Your task to perform on an android device: turn off location Image 0: 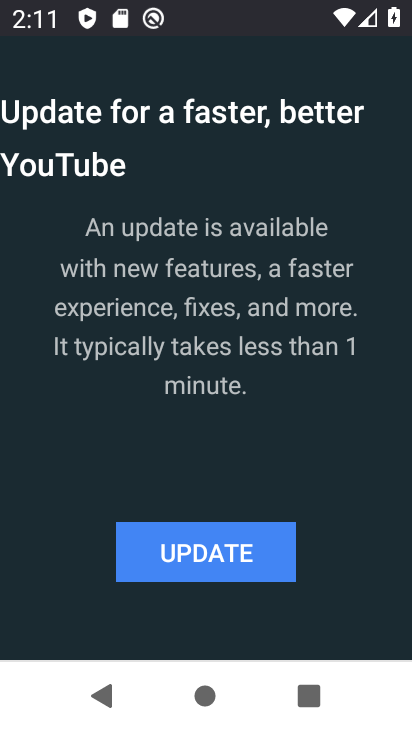
Step 0: press home button
Your task to perform on an android device: turn off location Image 1: 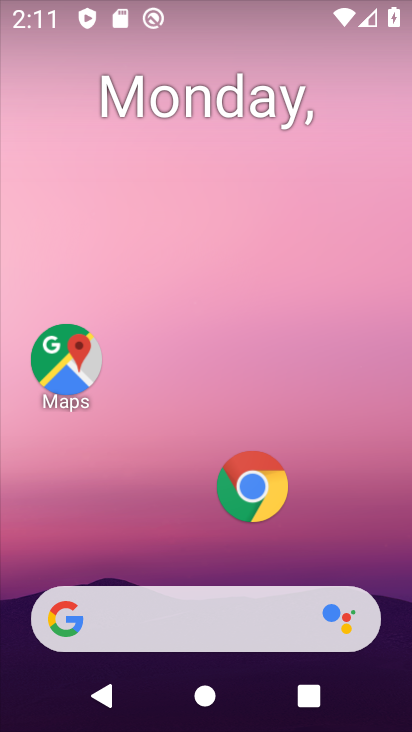
Step 1: drag from (334, 531) to (323, 69)
Your task to perform on an android device: turn off location Image 2: 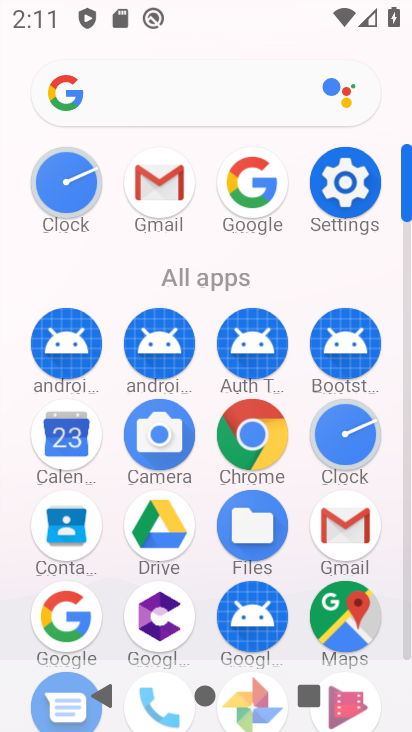
Step 2: click (336, 184)
Your task to perform on an android device: turn off location Image 3: 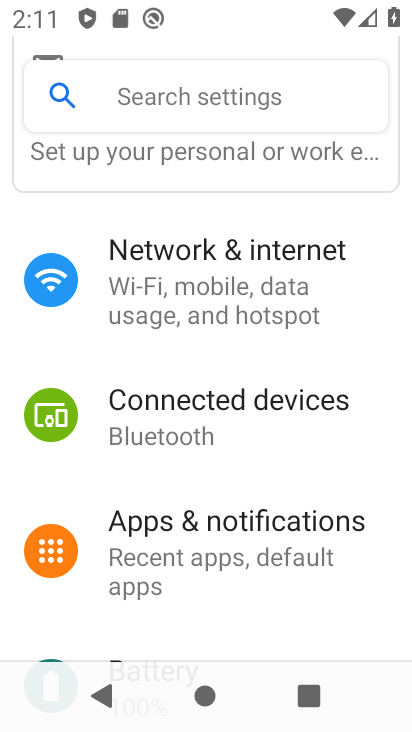
Step 3: drag from (235, 592) to (275, 302)
Your task to perform on an android device: turn off location Image 4: 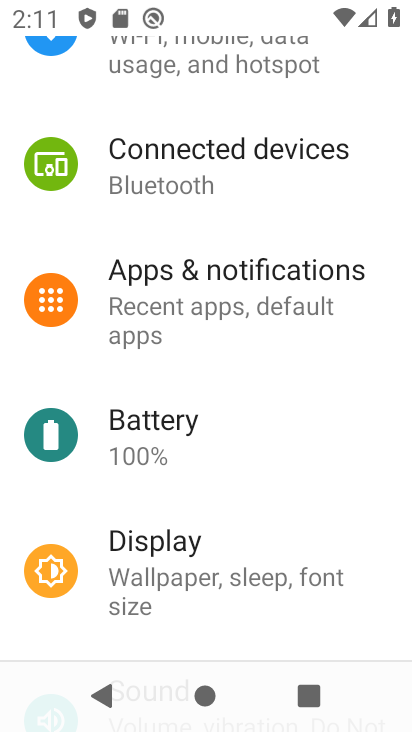
Step 4: drag from (214, 574) to (237, 368)
Your task to perform on an android device: turn off location Image 5: 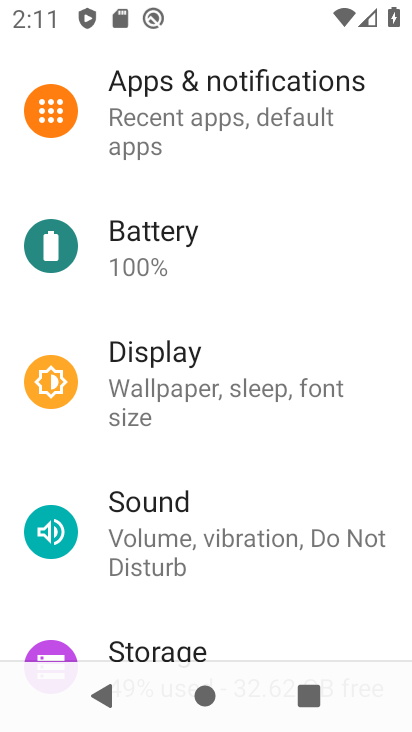
Step 5: drag from (246, 601) to (276, 387)
Your task to perform on an android device: turn off location Image 6: 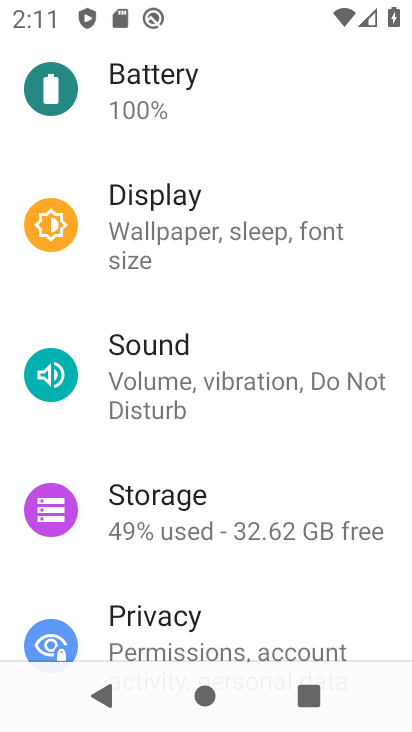
Step 6: drag from (258, 623) to (272, 389)
Your task to perform on an android device: turn off location Image 7: 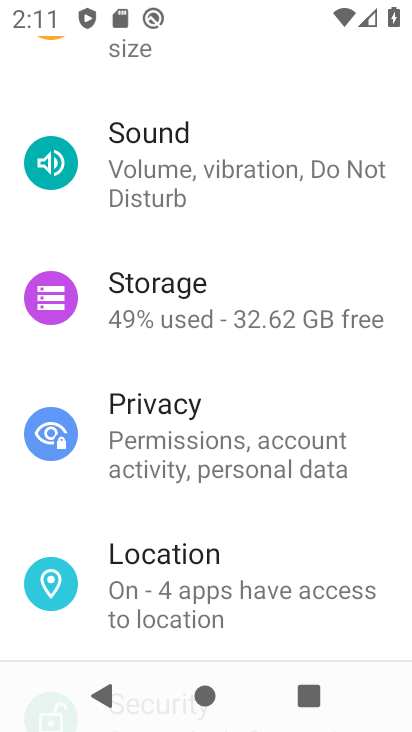
Step 7: click (183, 600)
Your task to perform on an android device: turn off location Image 8: 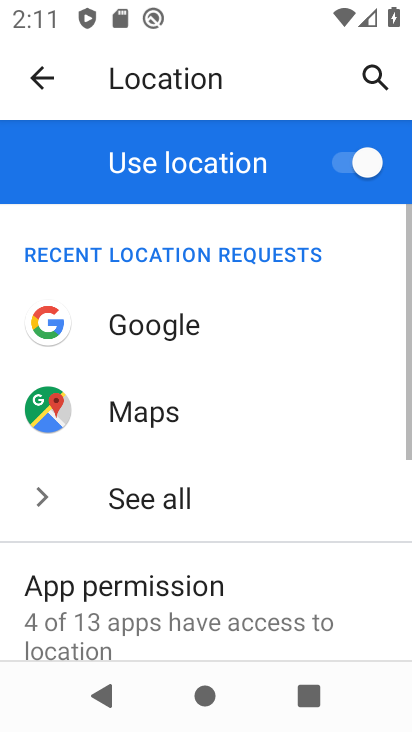
Step 8: drag from (225, 605) to (231, 522)
Your task to perform on an android device: turn off location Image 9: 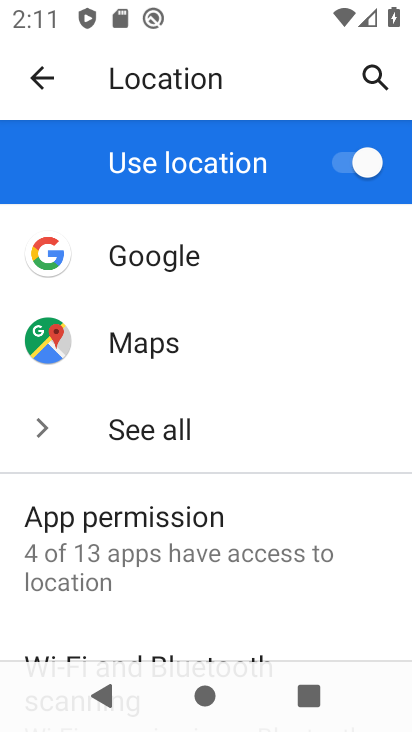
Step 9: click (319, 171)
Your task to perform on an android device: turn off location Image 10: 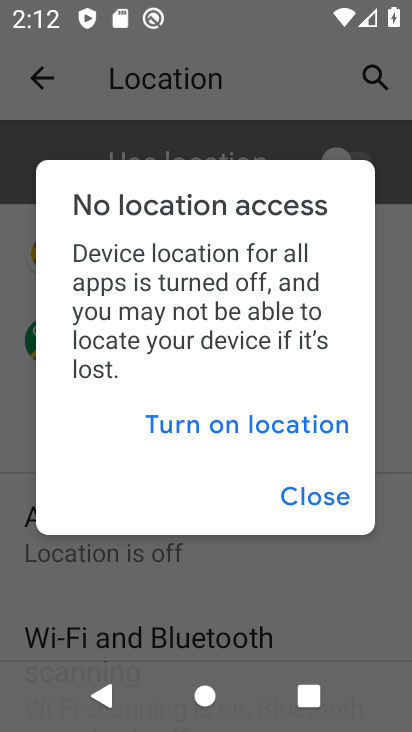
Step 10: click (299, 489)
Your task to perform on an android device: turn off location Image 11: 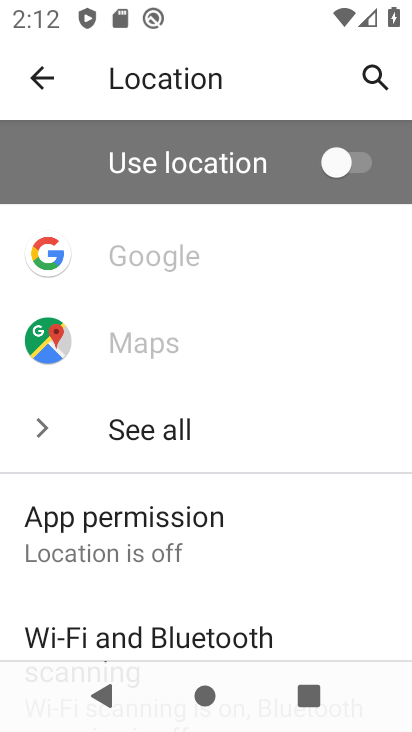
Step 11: task complete